Your task to perform on an android device: snooze an email in the gmail app Image 0: 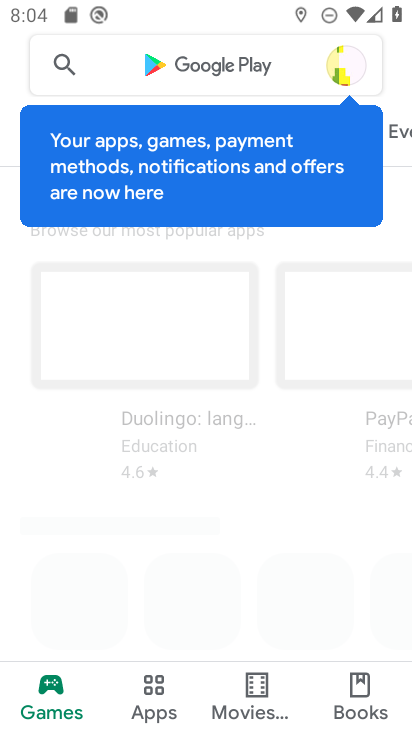
Step 0: press home button
Your task to perform on an android device: snooze an email in the gmail app Image 1: 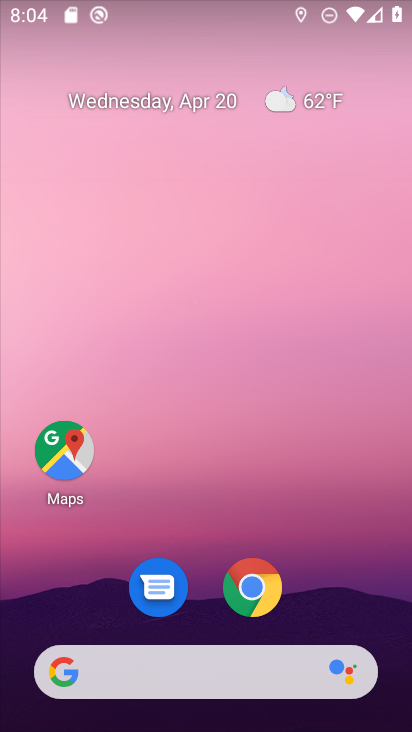
Step 1: drag from (325, 581) to (284, 24)
Your task to perform on an android device: snooze an email in the gmail app Image 2: 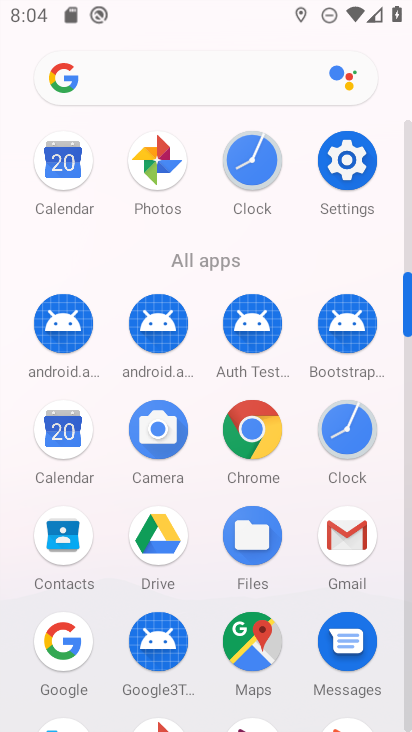
Step 2: click (332, 555)
Your task to perform on an android device: snooze an email in the gmail app Image 3: 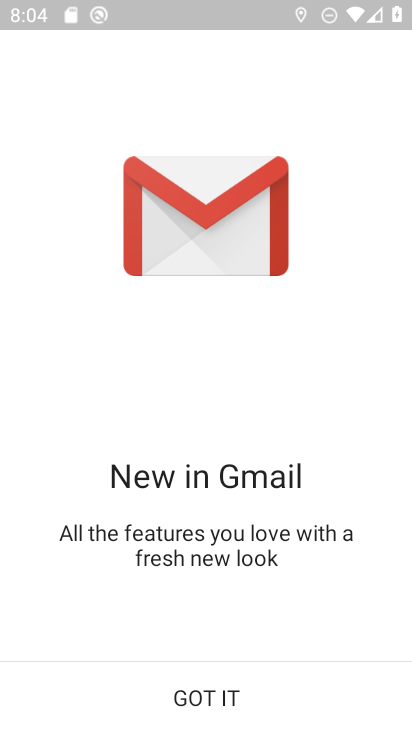
Step 3: click (262, 719)
Your task to perform on an android device: snooze an email in the gmail app Image 4: 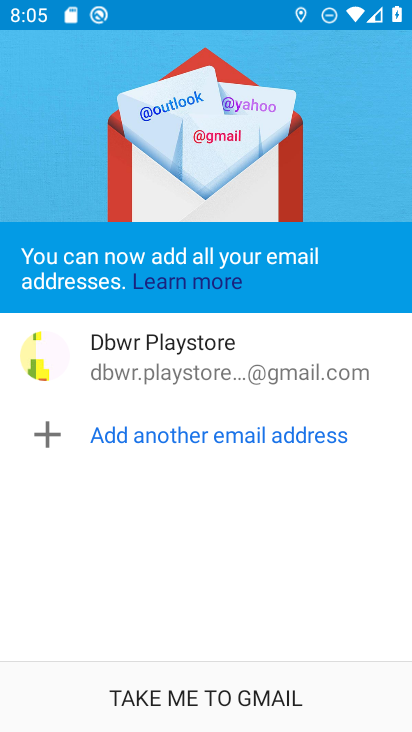
Step 4: click (208, 684)
Your task to perform on an android device: snooze an email in the gmail app Image 5: 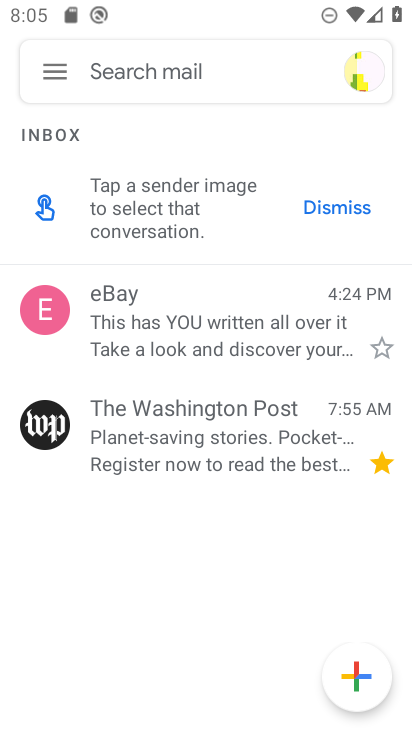
Step 5: click (58, 312)
Your task to perform on an android device: snooze an email in the gmail app Image 6: 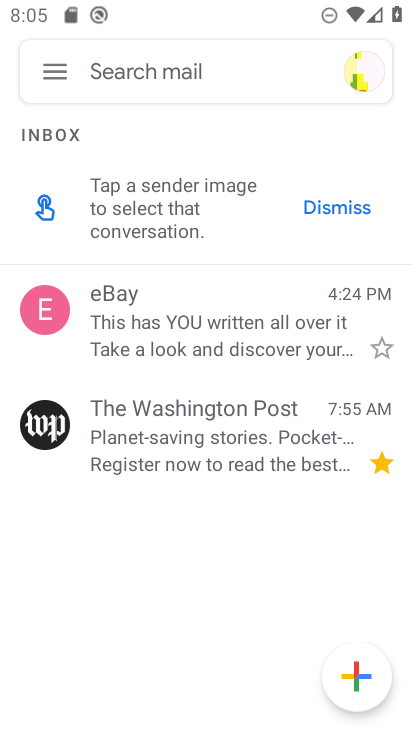
Step 6: click (53, 310)
Your task to perform on an android device: snooze an email in the gmail app Image 7: 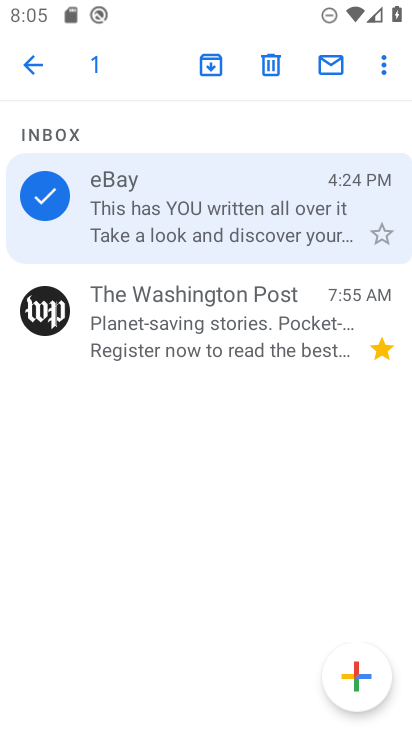
Step 7: click (382, 61)
Your task to perform on an android device: snooze an email in the gmail app Image 8: 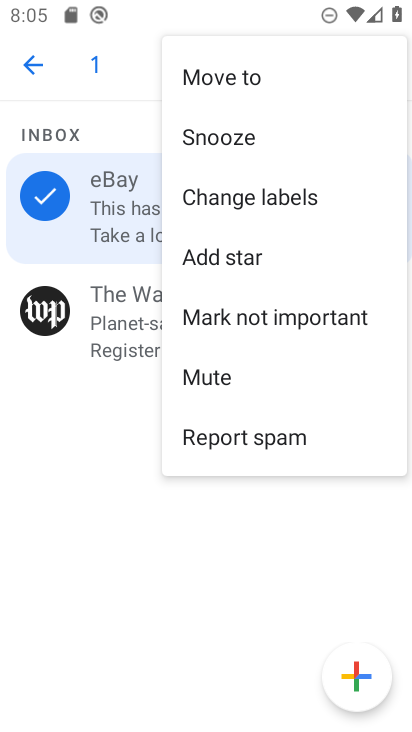
Step 8: click (222, 150)
Your task to perform on an android device: snooze an email in the gmail app Image 9: 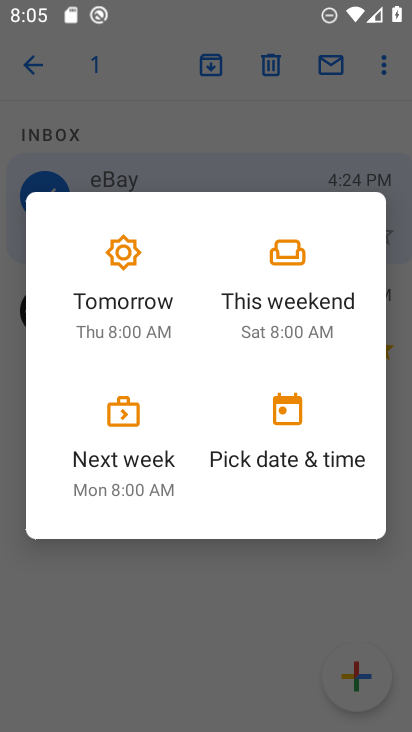
Step 9: click (279, 289)
Your task to perform on an android device: snooze an email in the gmail app Image 10: 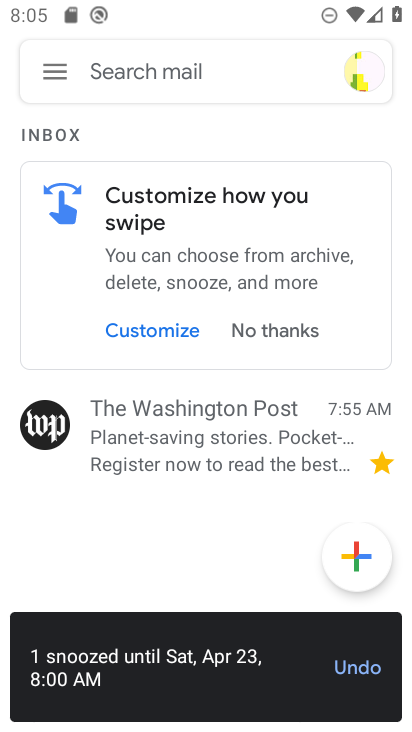
Step 10: click (281, 327)
Your task to perform on an android device: snooze an email in the gmail app Image 11: 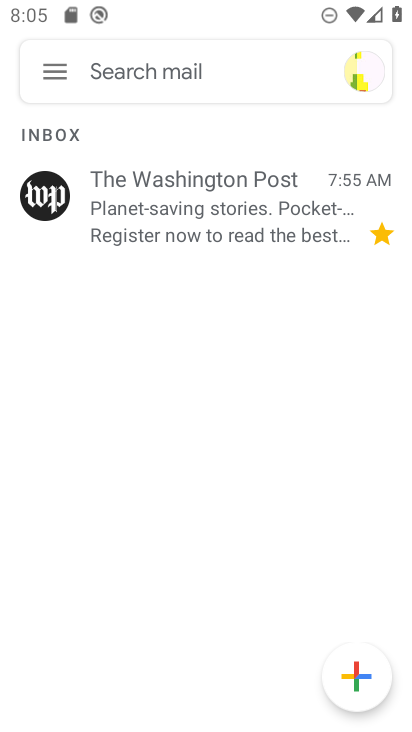
Step 11: task complete